Your task to perform on an android device: Go to accessibility settings Image 0: 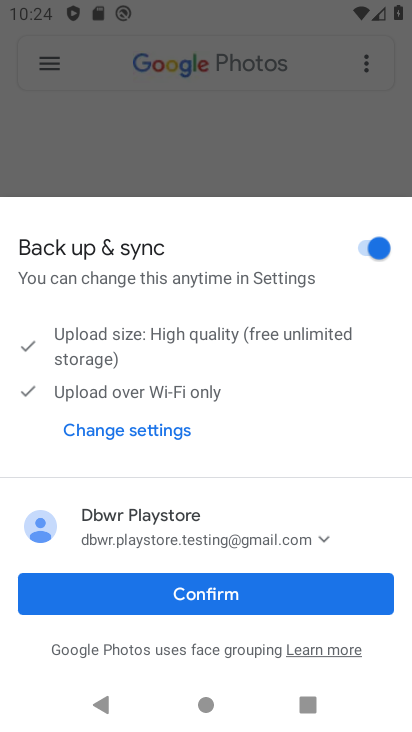
Step 0: press home button
Your task to perform on an android device: Go to accessibility settings Image 1: 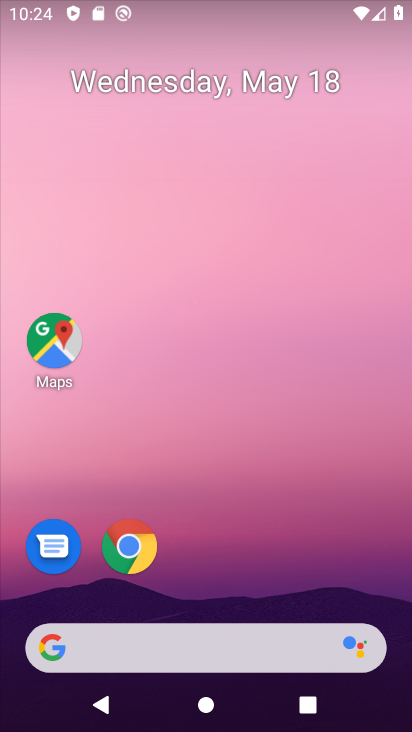
Step 1: drag from (236, 727) to (244, 172)
Your task to perform on an android device: Go to accessibility settings Image 2: 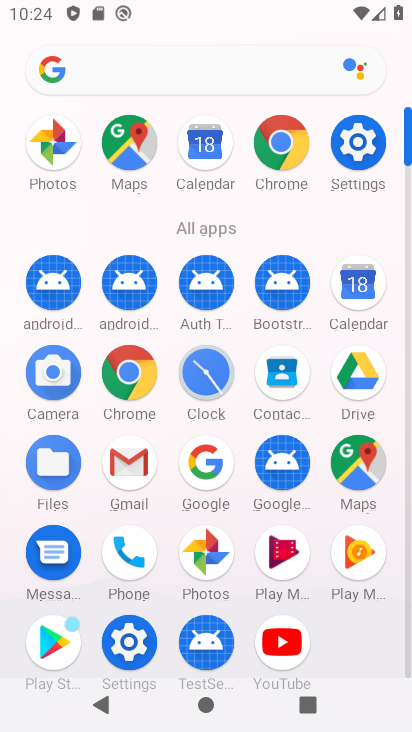
Step 2: click (364, 138)
Your task to perform on an android device: Go to accessibility settings Image 3: 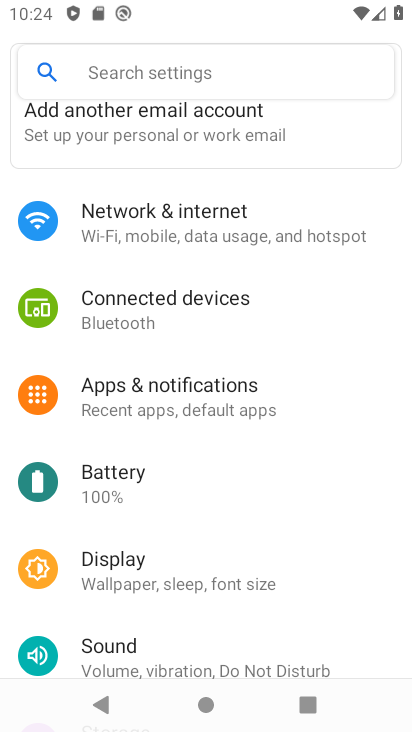
Step 3: drag from (171, 616) to (184, 204)
Your task to perform on an android device: Go to accessibility settings Image 4: 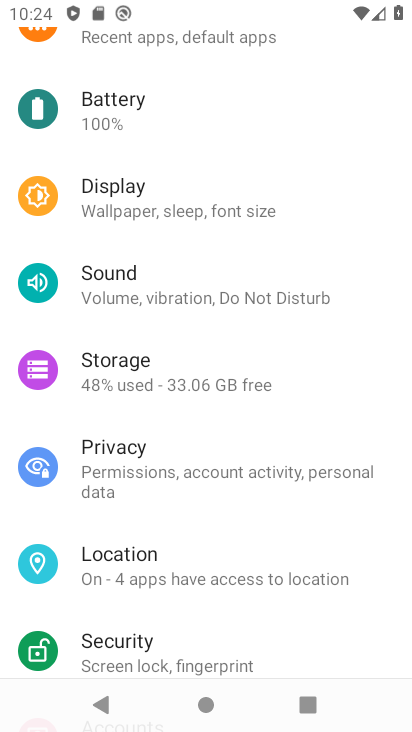
Step 4: drag from (170, 615) to (178, 139)
Your task to perform on an android device: Go to accessibility settings Image 5: 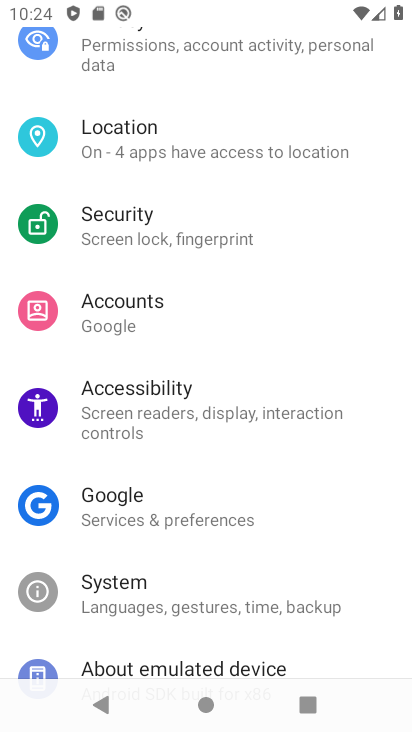
Step 5: click (129, 407)
Your task to perform on an android device: Go to accessibility settings Image 6: 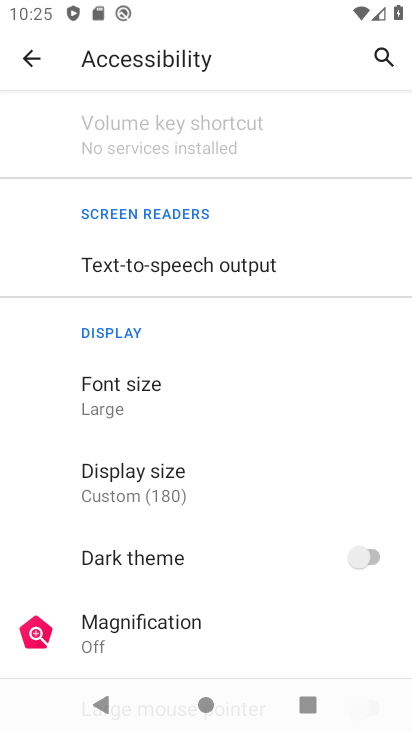
Step 6: task complete